Your task to perform on an android device: Go to accessibility settings Image 0: 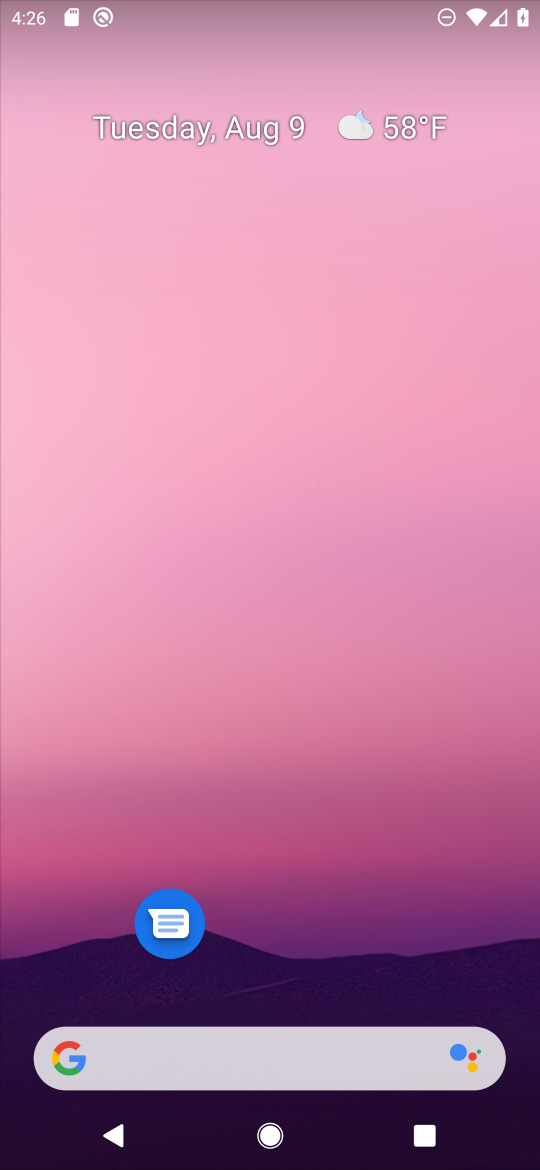
Step 0: drag from (334, 385) to (376, 100)
Your task to perform on an android device: Go to accessibility settings Image 1: 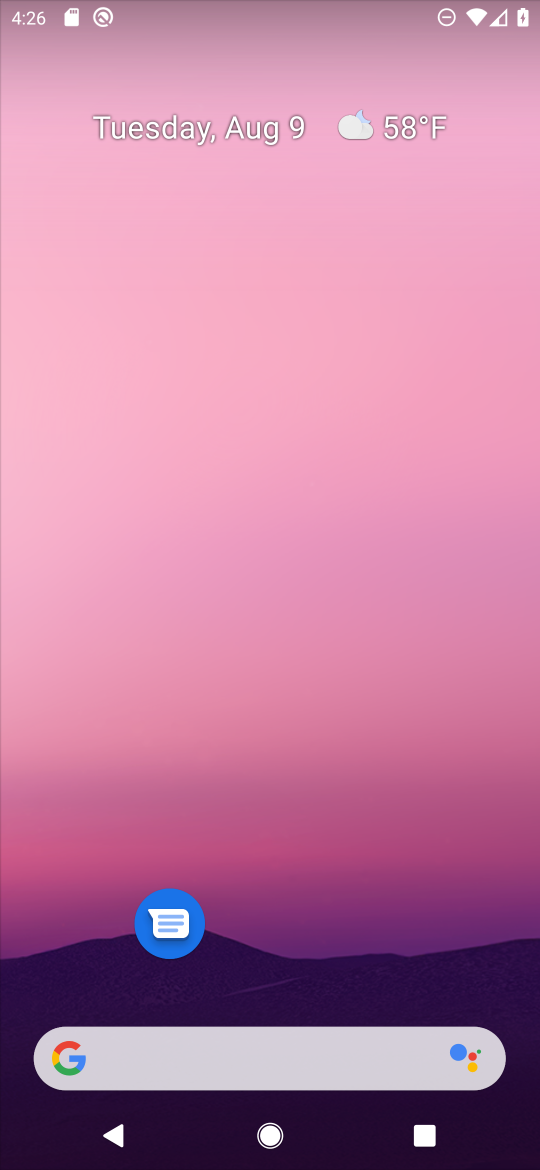
Step 1: drag from (300, 977) to (444, 1)
Your task to perform on an android device: Go to accessibility settings Image 2: 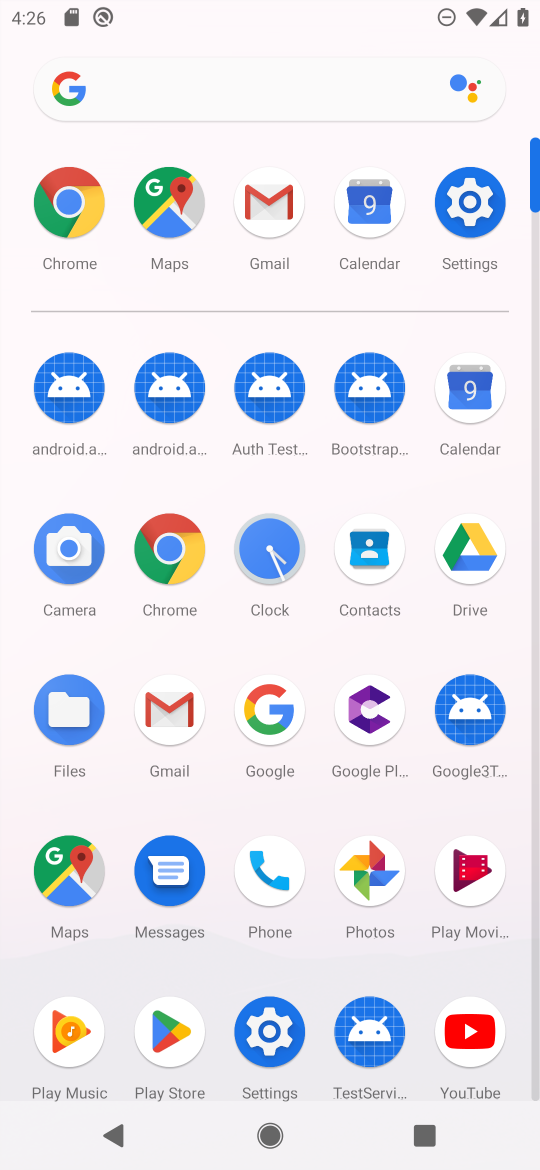
Step 2: click (470, 213)
Your task to perform on an android device: Go to accessibility settings Image 3: 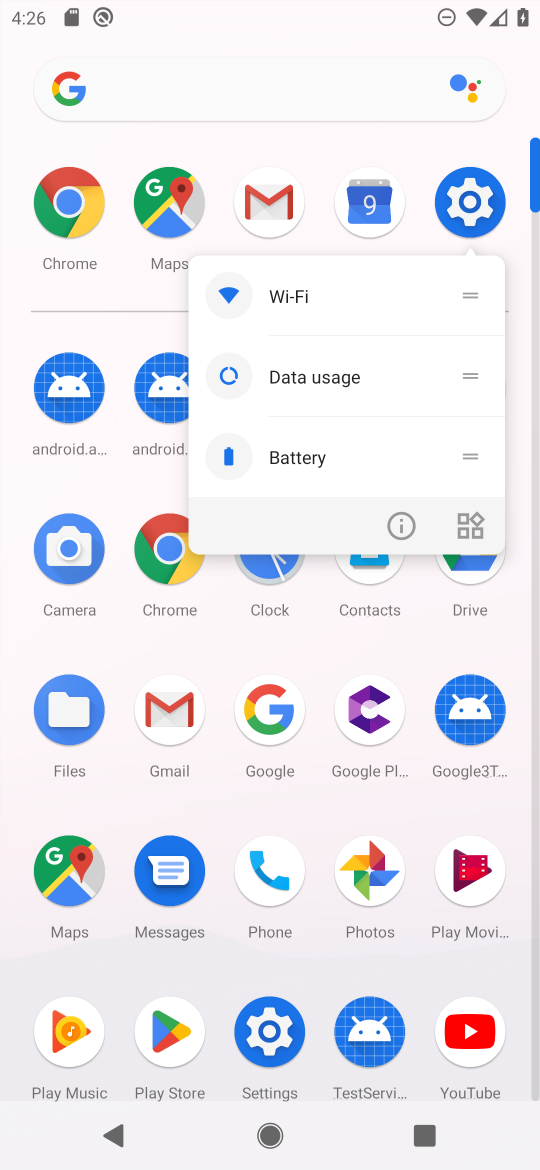
Step 3: click (478, 191)
Your task to perform on an android device: Go to accessibility settings Image 4: 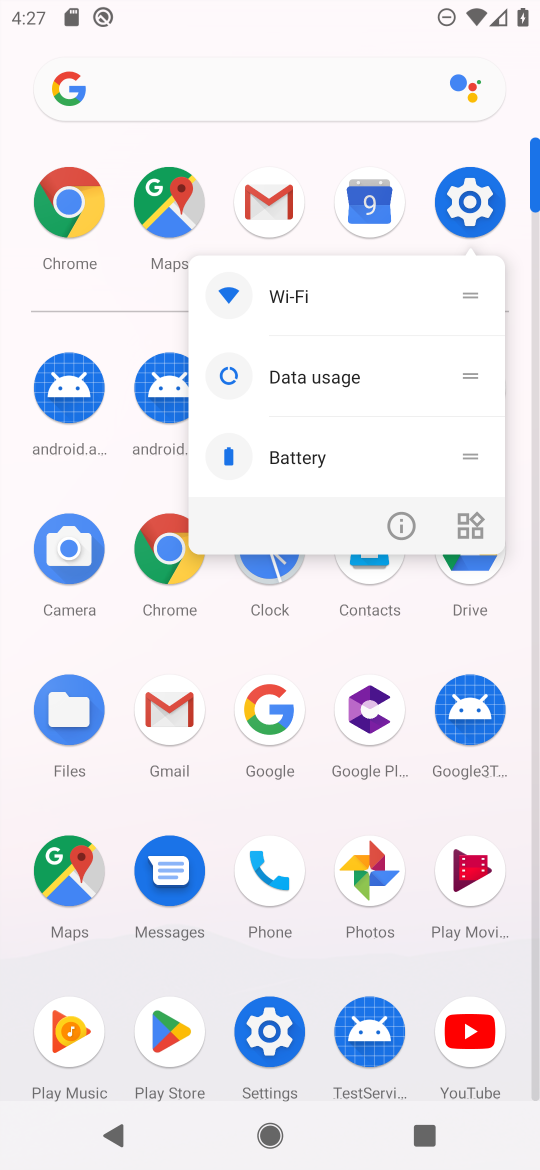
Step 4: click (474, 194)
Your task to perform on an android device: Go to accessibility settings Image 5: 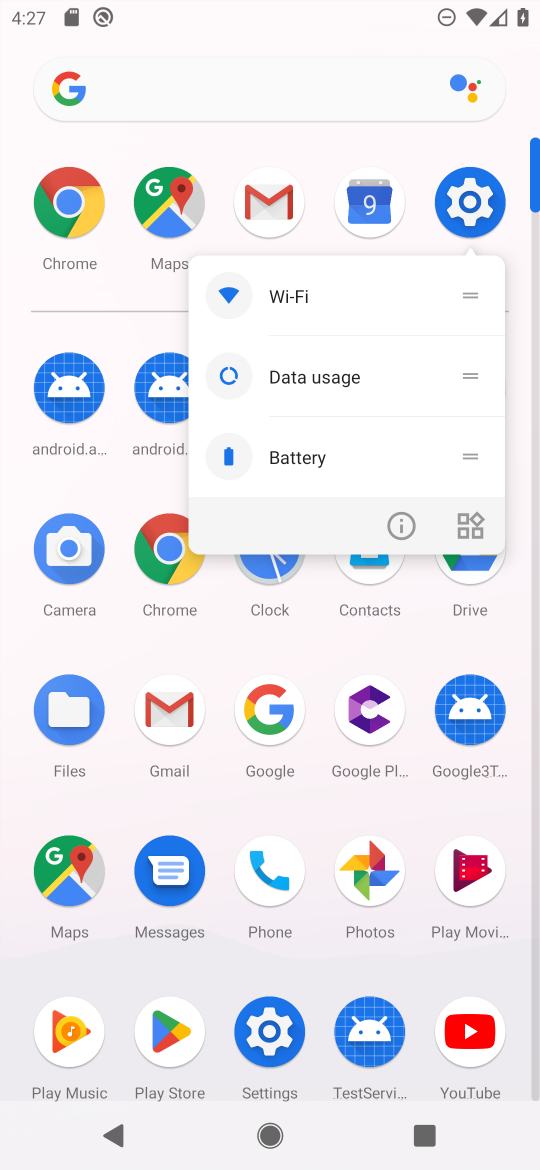
Step 5: click (472, 209)
Your task to perform on an android device: Go to accessibility settings Image 6: 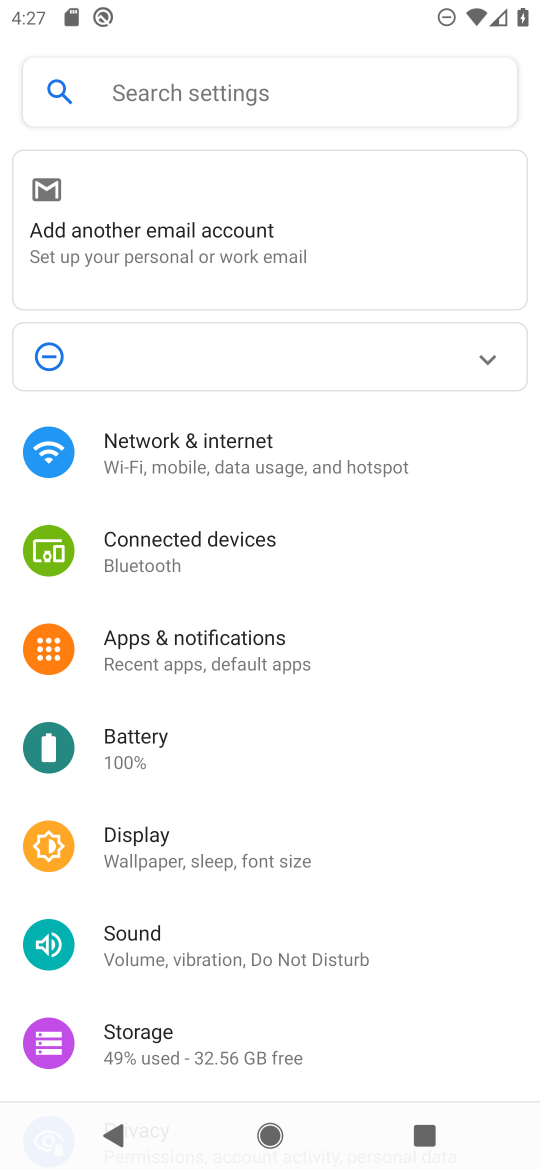
Step 6: drag from (253, 1075) to (512, 111)
Your task to perform on an android device: Go to accessibility settings Image 7: 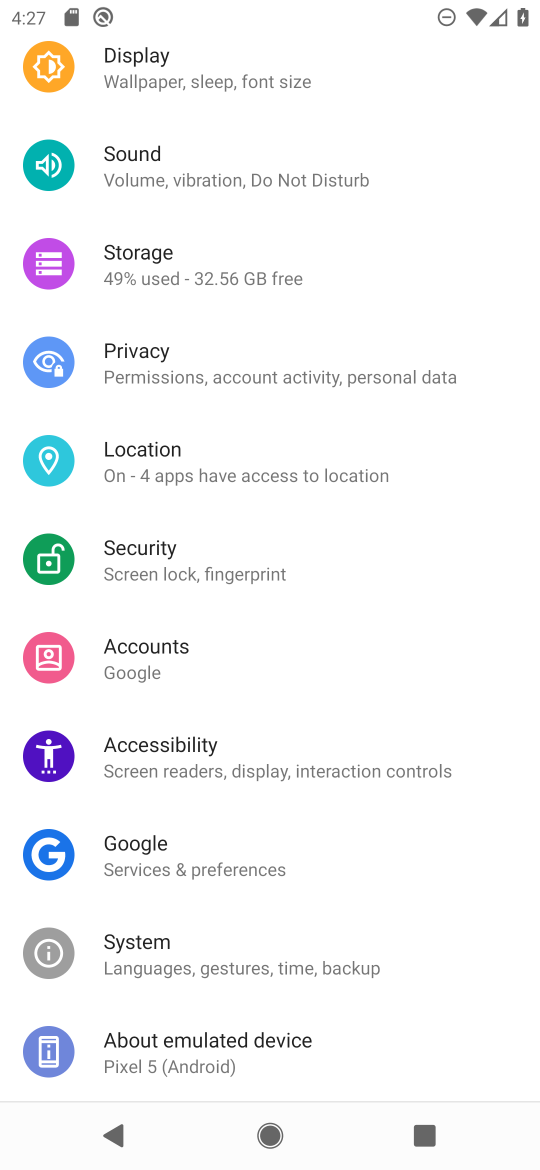
Step 7: click (169, 748)
Your task to perform on an android device: Go to accessibility settings Image 8: 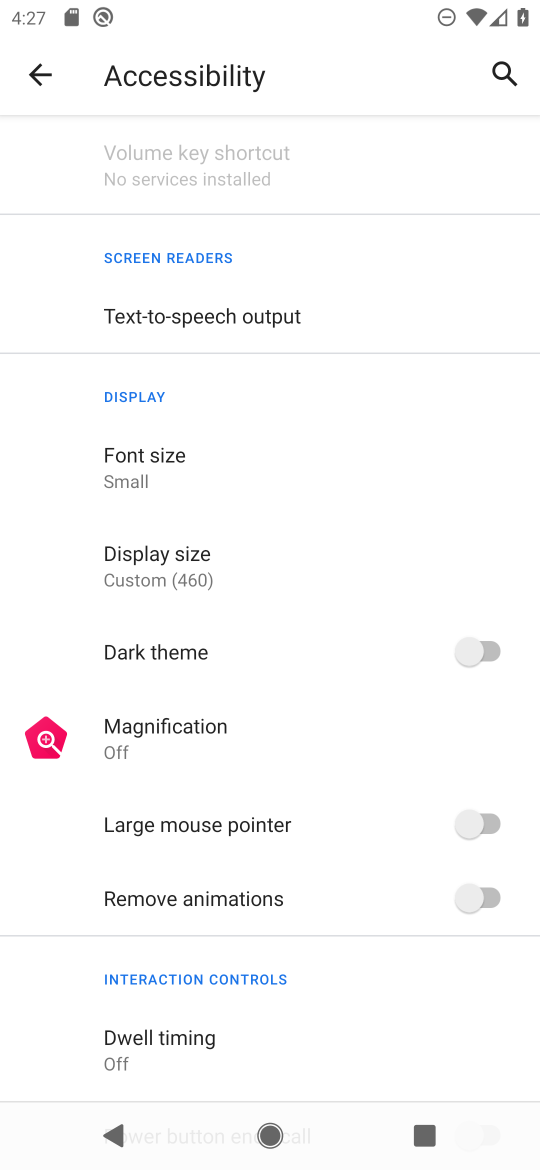
Step 8: task complete